Your task to perform on an android device: see creations saved in the google photos Image 0: 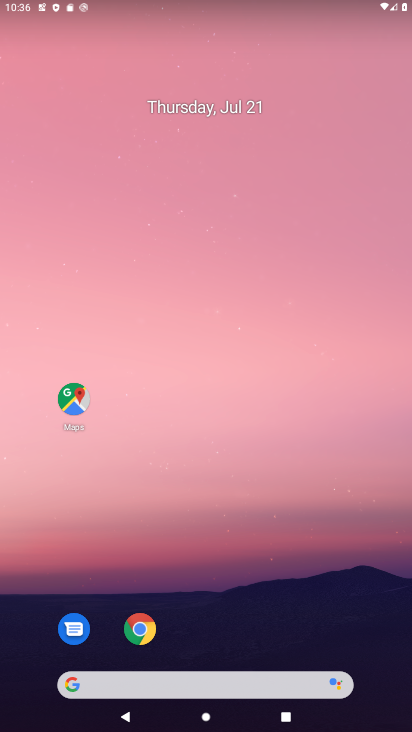
Step 0: drag from (248, 574) to (322, 228)
Your task to perform on an android device: see creations saved in the google photos Image 1: 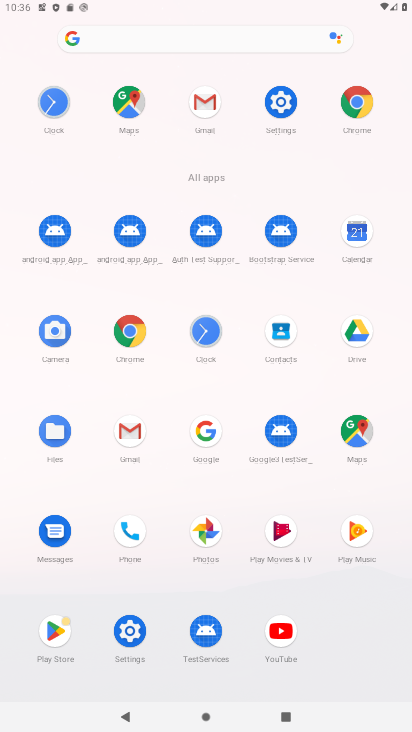
Step 1: click (197, 533)
Your task to perform on an android device: see creations saved in the google photos Image 2: 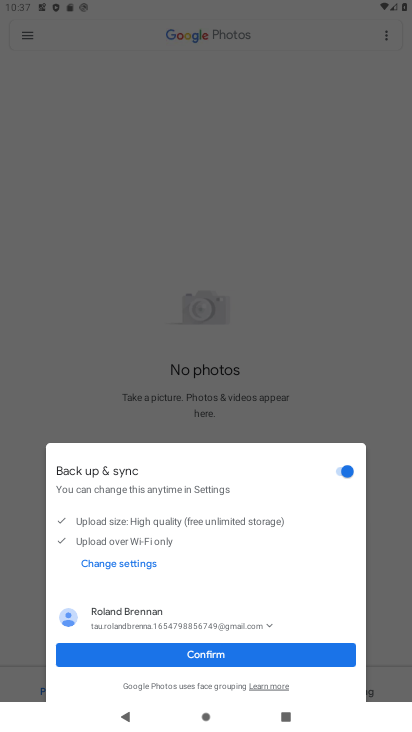
Step 2: task complete